Your task to perform on an android device: uninstall "Facebook" Image 0: 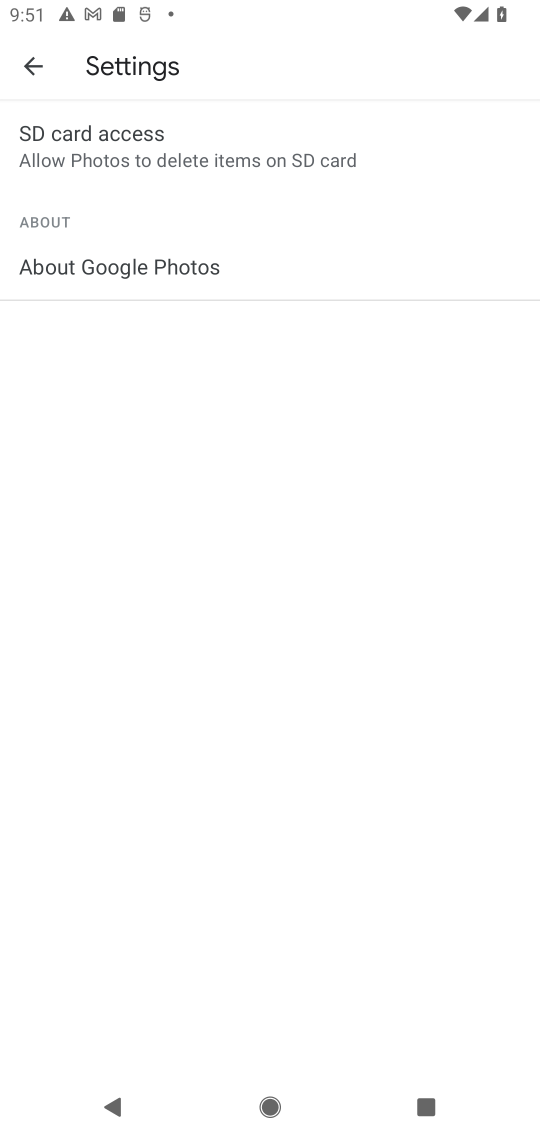
Step 0: press home button
Your task to perform on an android device: uninstall "Facebook" Image 1: 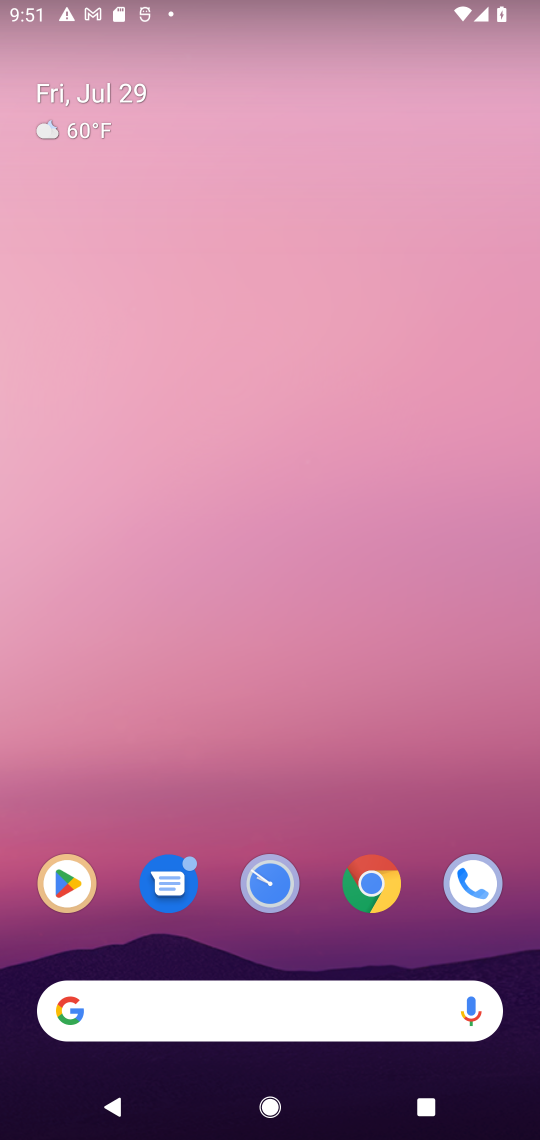
Step 1: click (68, 875)
Your task to perform on an android device: uninstall "Facebook" Image 2: 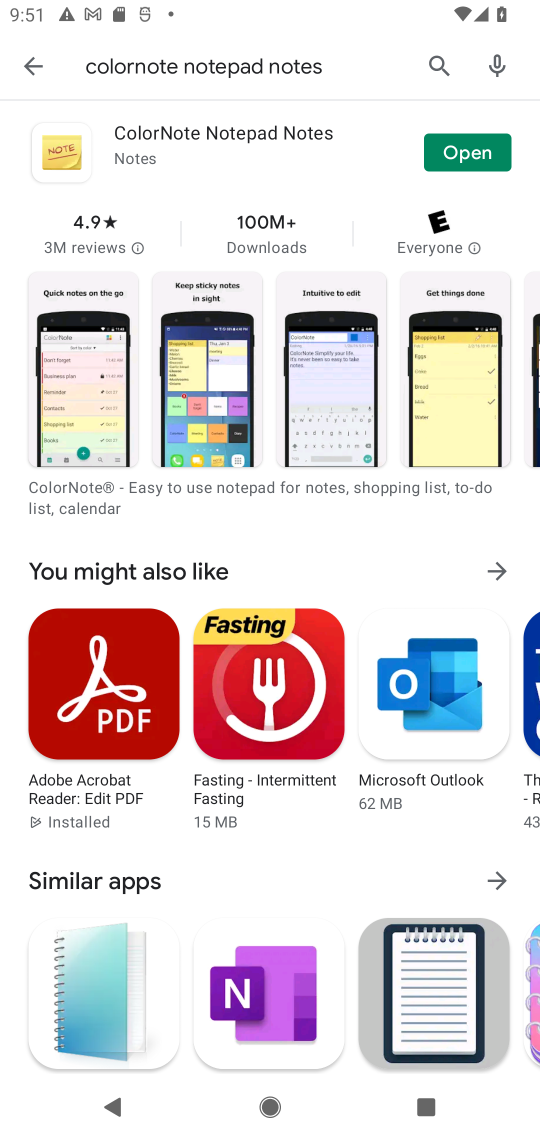
Step 2: click (218, 58)
Your task to perform on an android device: uninstall "Facebook" Image 3: 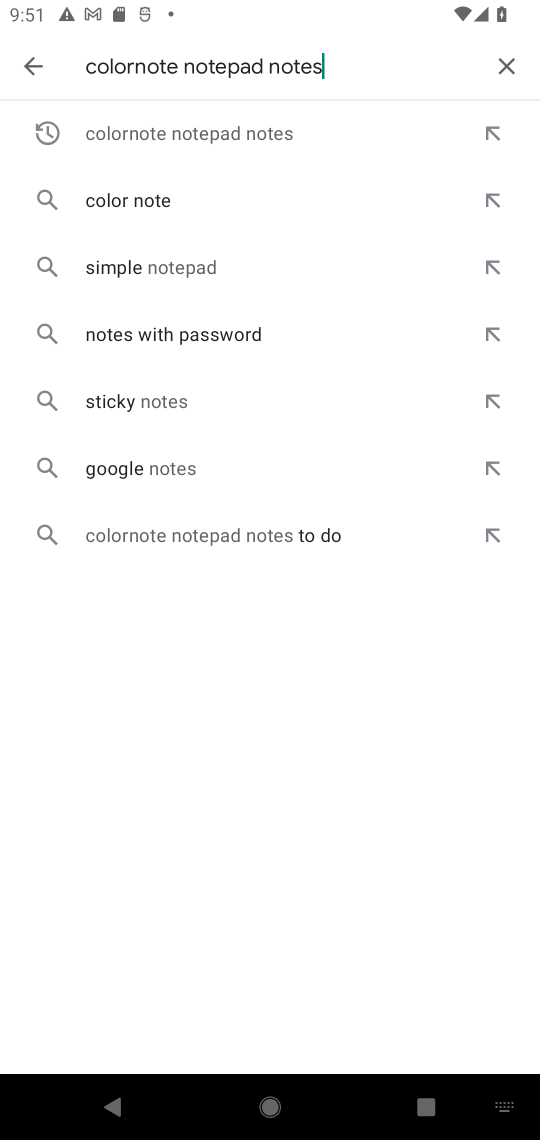
Step 3: click (500, 69)
Your task to perform on an android device: uninstall "Facebook" Image 4: 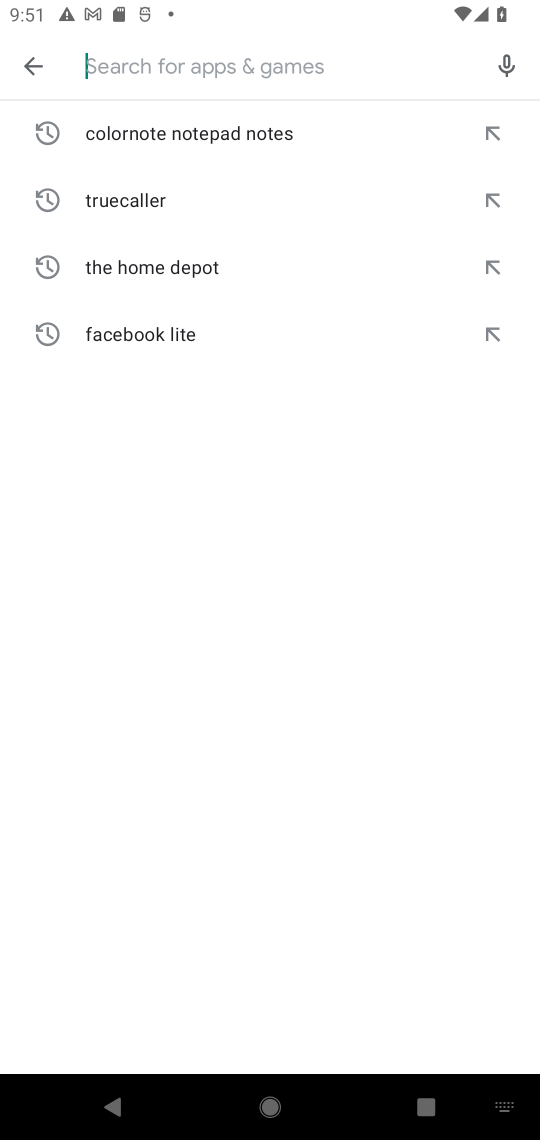
Step 4: type "facebook"
Your task to perform on an android device: uninstall "Facebook" Image 5: 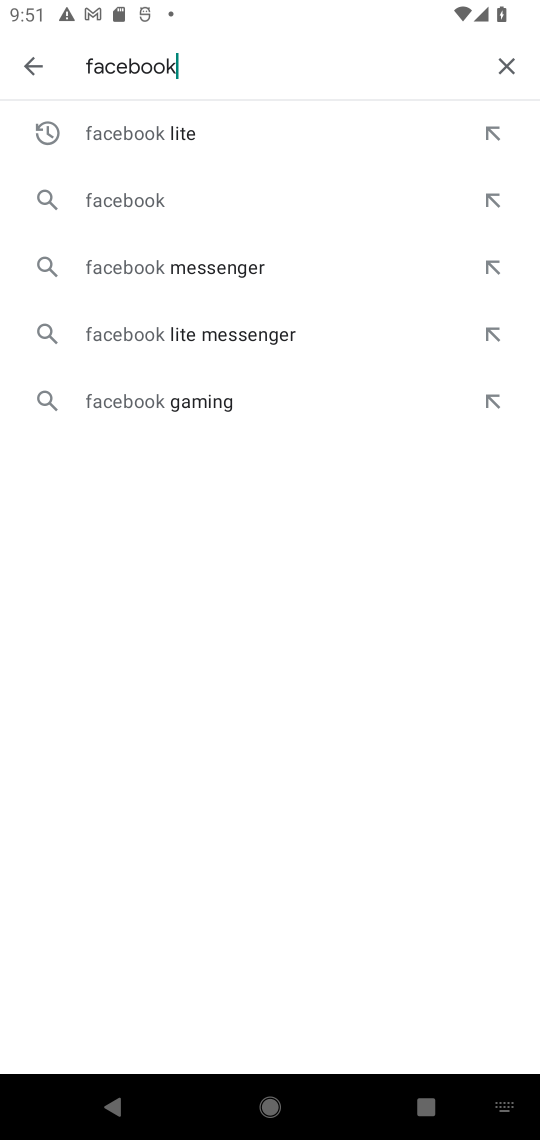
Step 5: click (162, 201)
Your task to perform on an android device: uninstall "Facebook" Image 6: 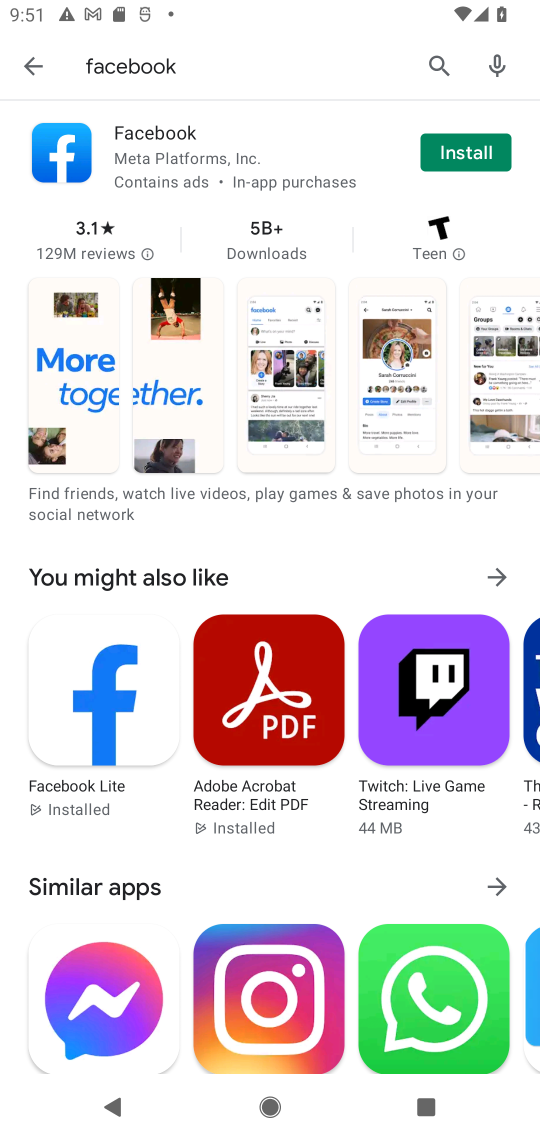
Step 6: task complete